Your task to perform on an android device: What is the capital of Spain? Image 0: 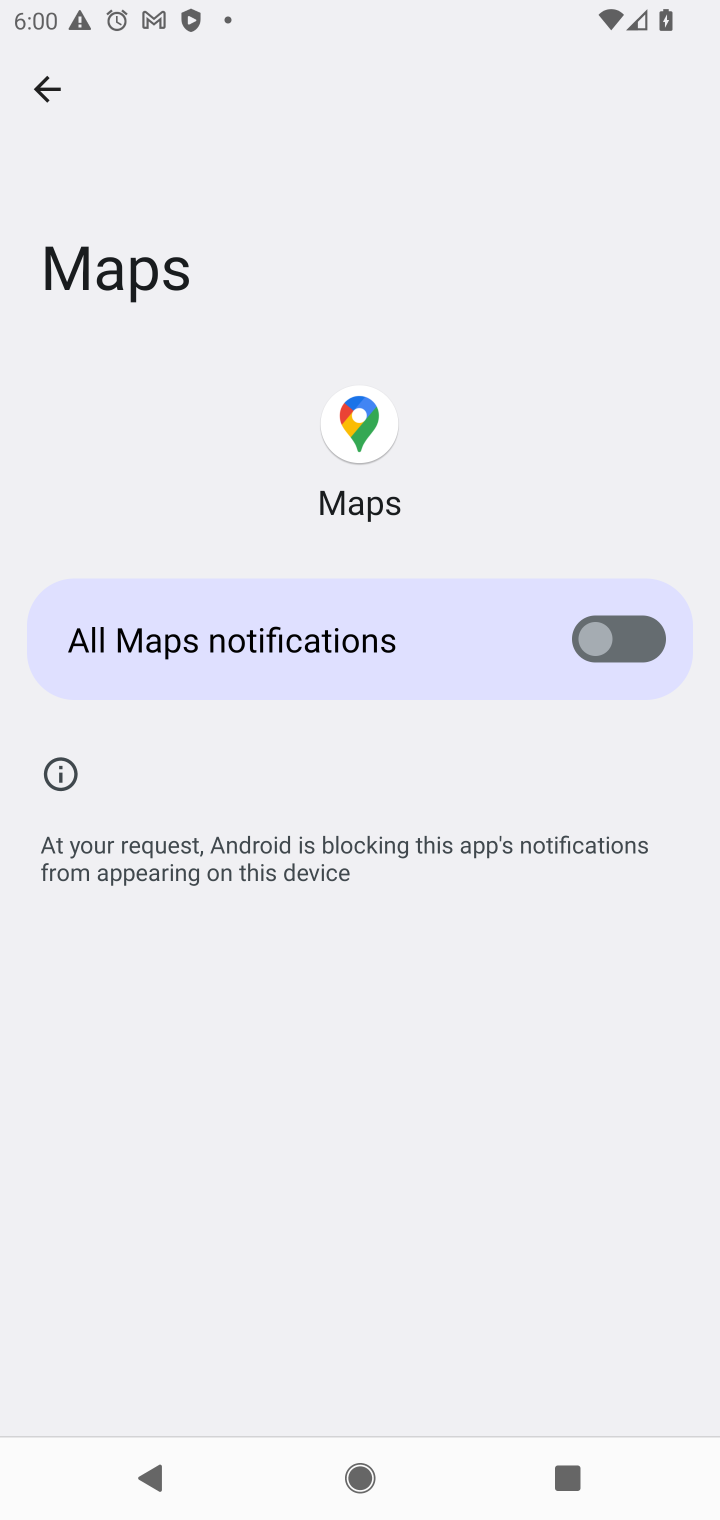
Step 0: press home button
Your task to perform on an android device: What is the capital of Spain? Image 1: 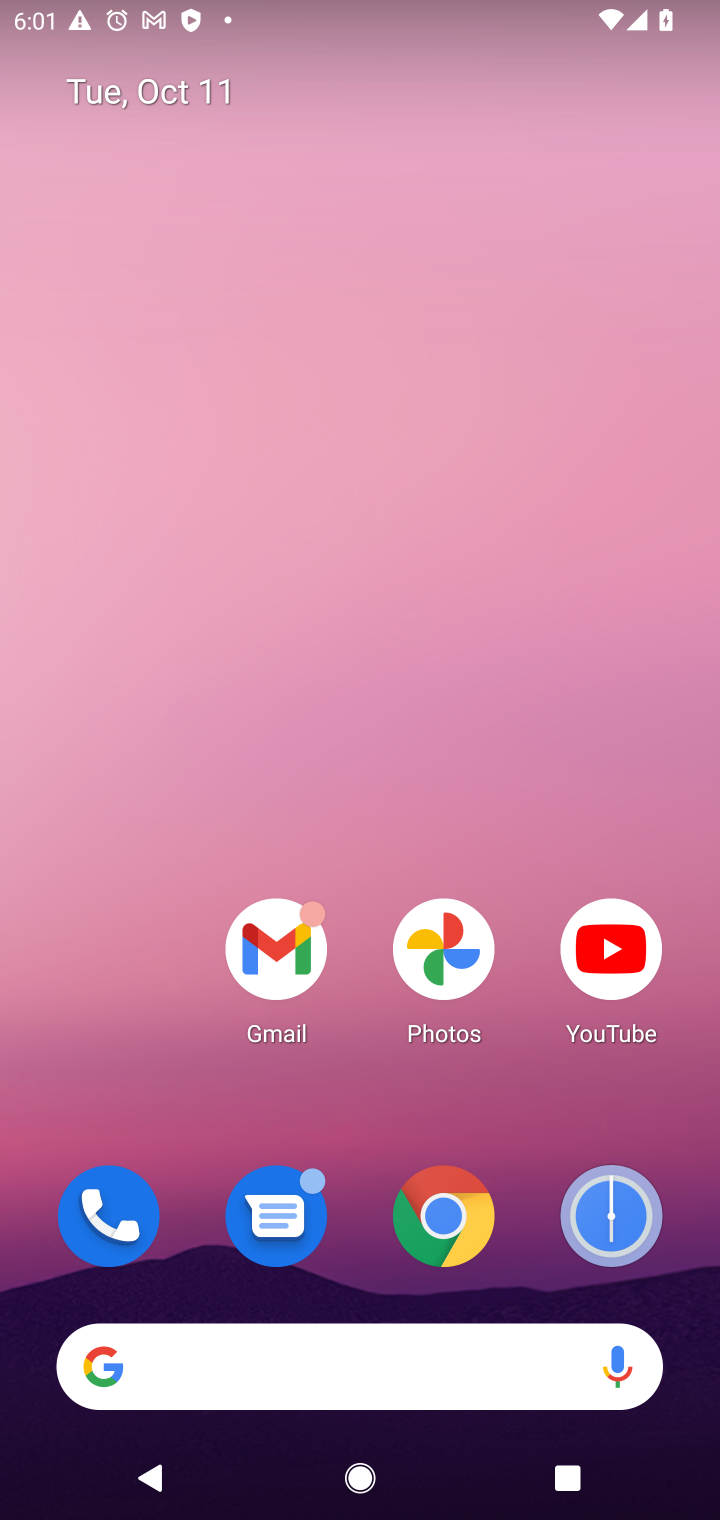
Step 1: click (455, 1244)
Your task to perform on an android device: What is the capital of Spain? Image 2: 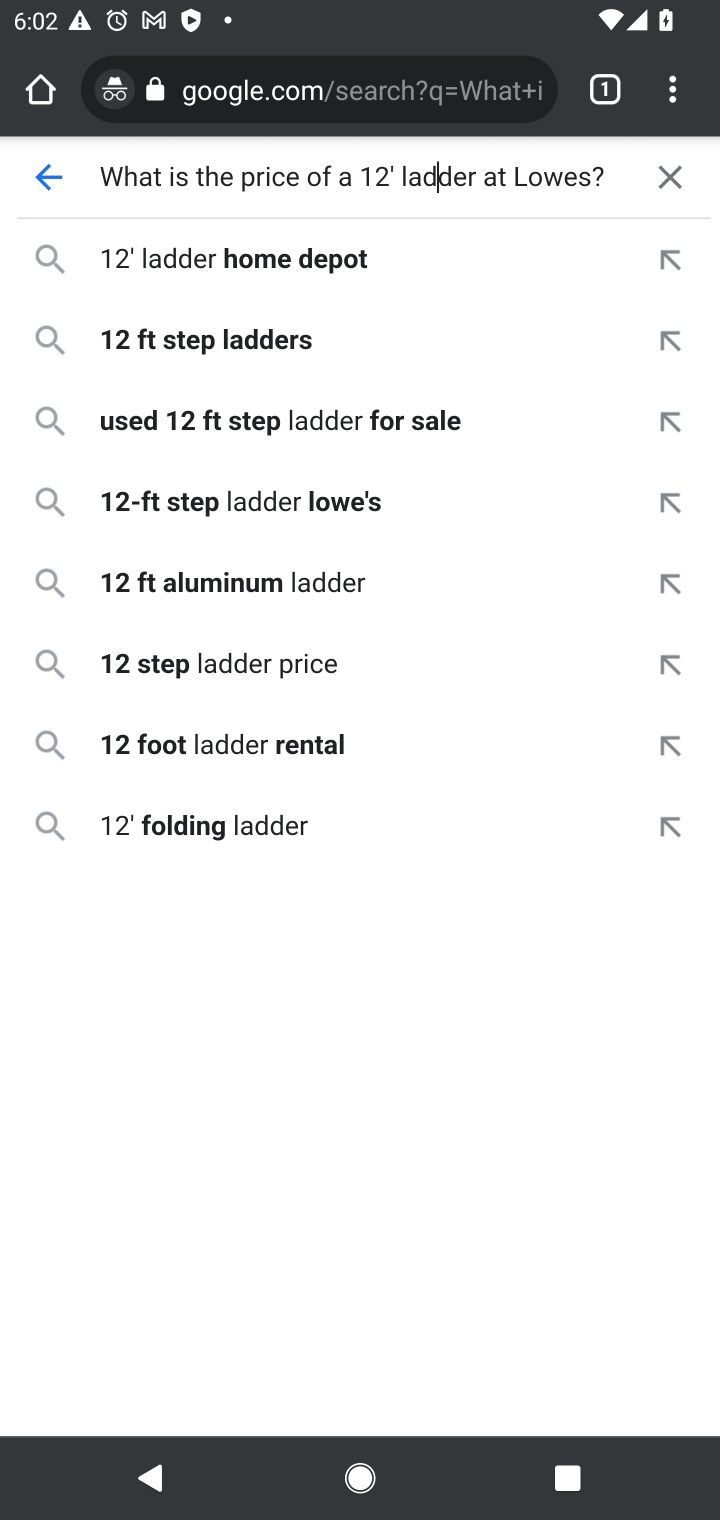
Step 2: click (659, 184)
Your task to perform on an android device: What is the capital of Spain? Image 3: 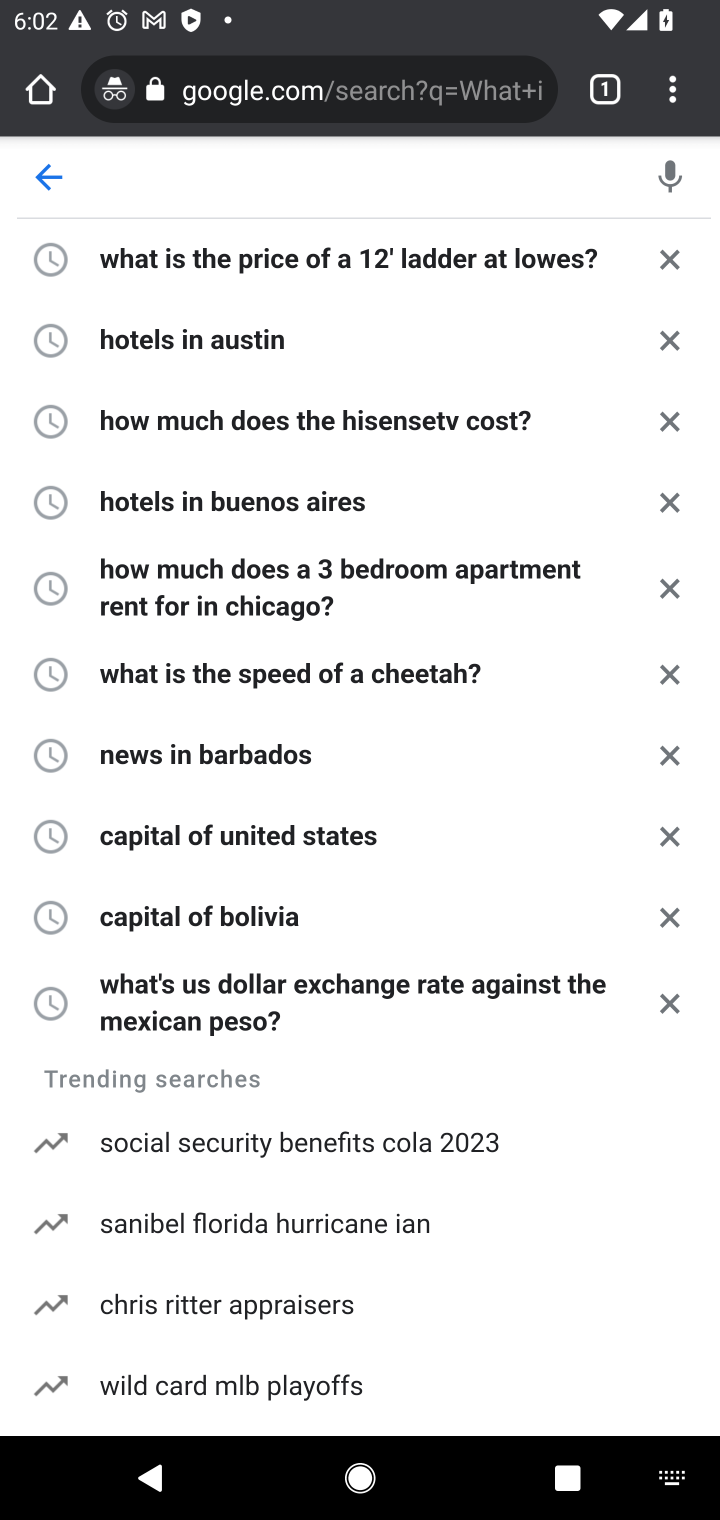
Step 3: type "What is the capital of Spain?"
Your task to perform on an android device: What is the capital of Spain? Image 4: 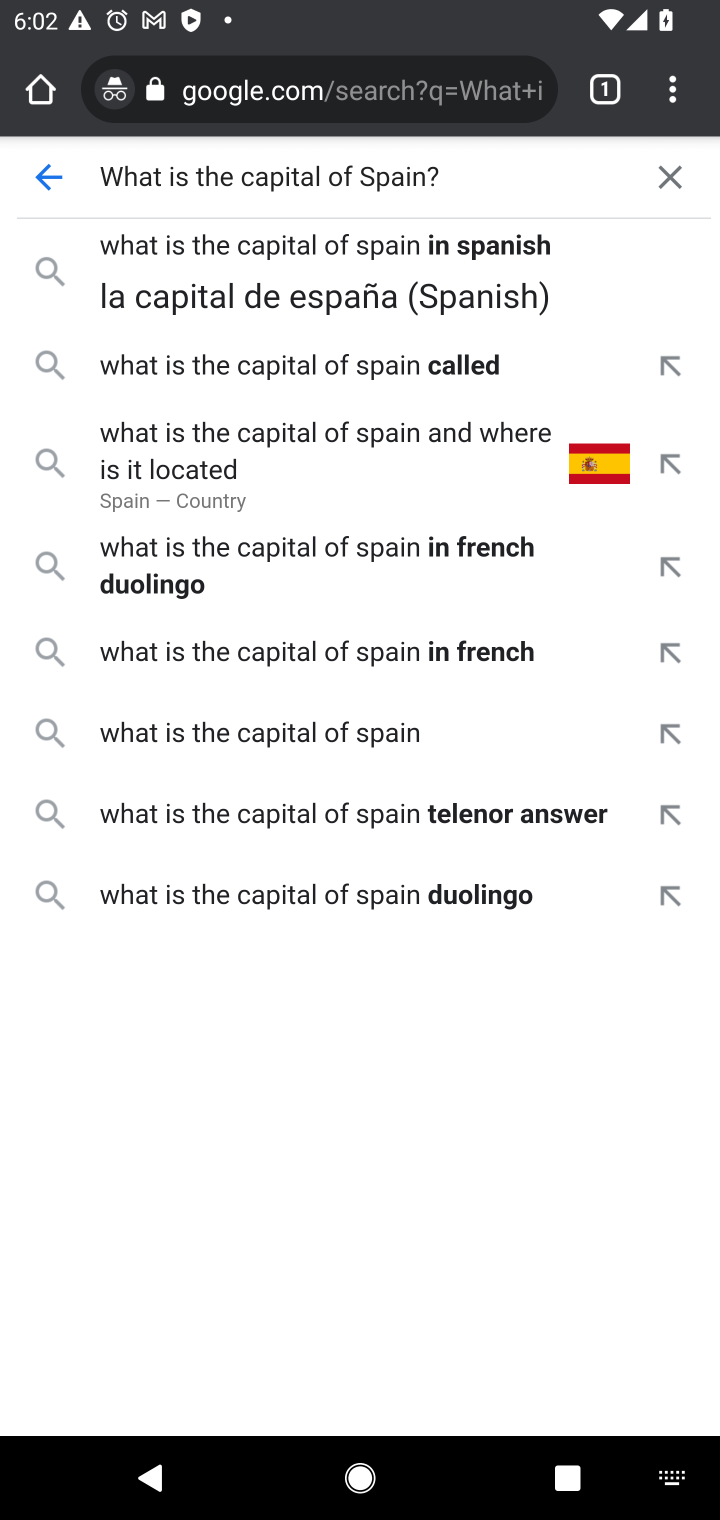
Step 4: press enter
Your task to perform on an android device: What is the capital of Spain? Image 5: 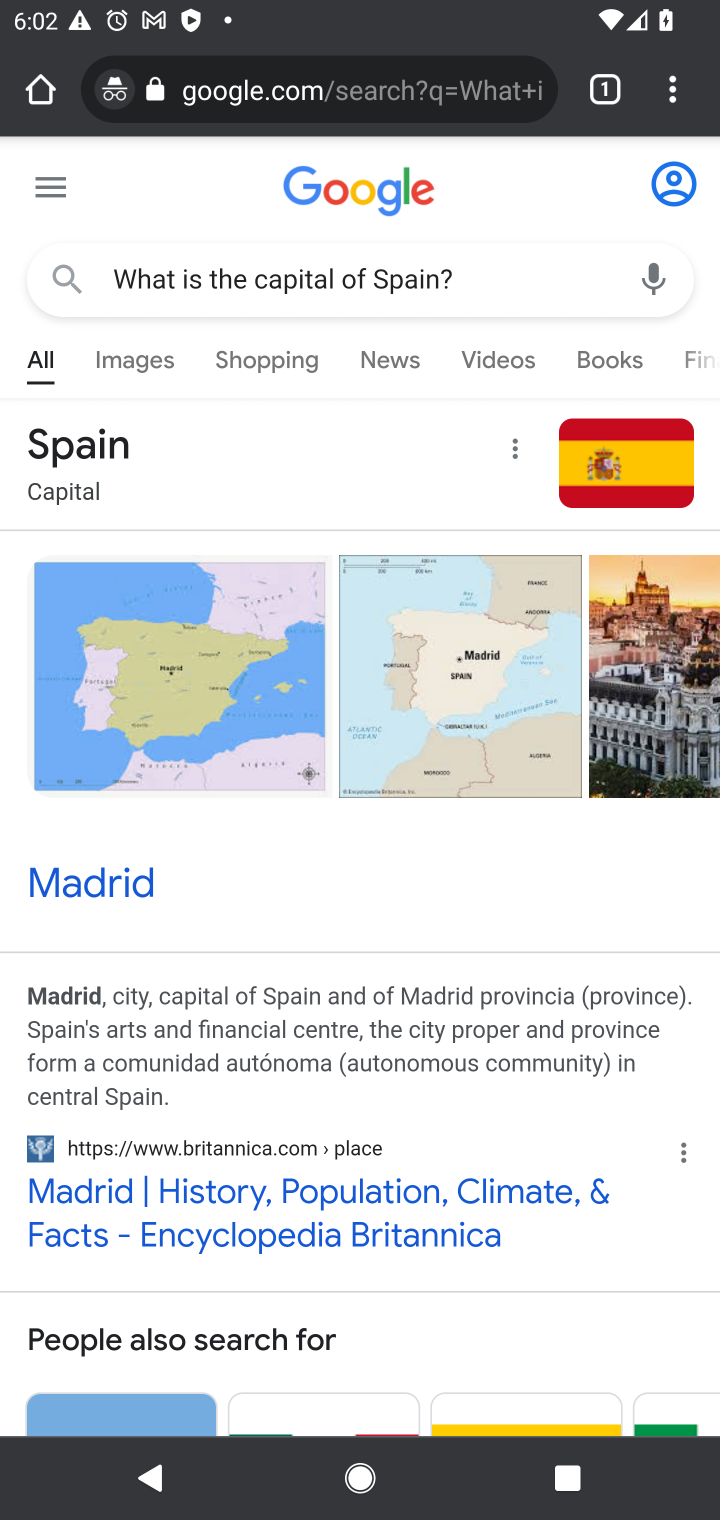
Step 5: task complete